Your task to perform on an android device: open app "Google Translate" Image 0: 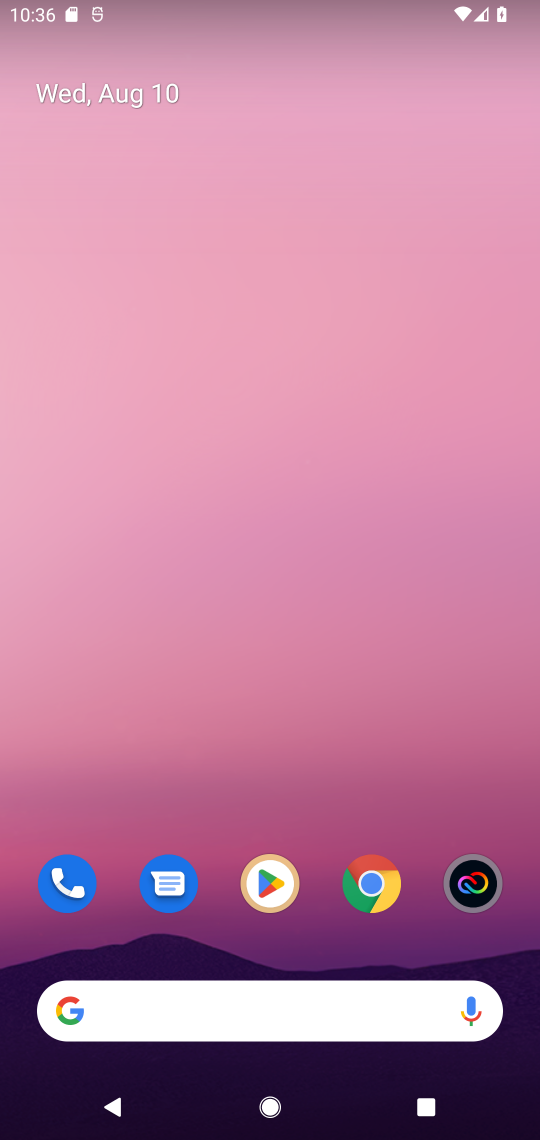
Step 0: drag from (328, 916) to (312, 215)
Your task to perform on an android device: open app "Google Translate" Image 1: 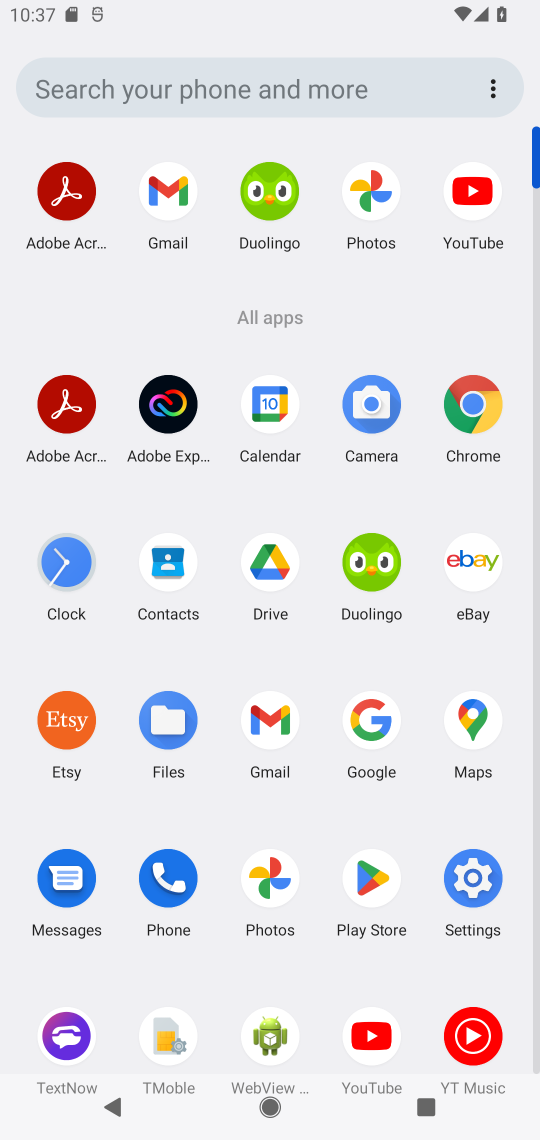
Step 1: click (368, 874)
Your task to perform on an android device: open app "Google Translate" Image 2: 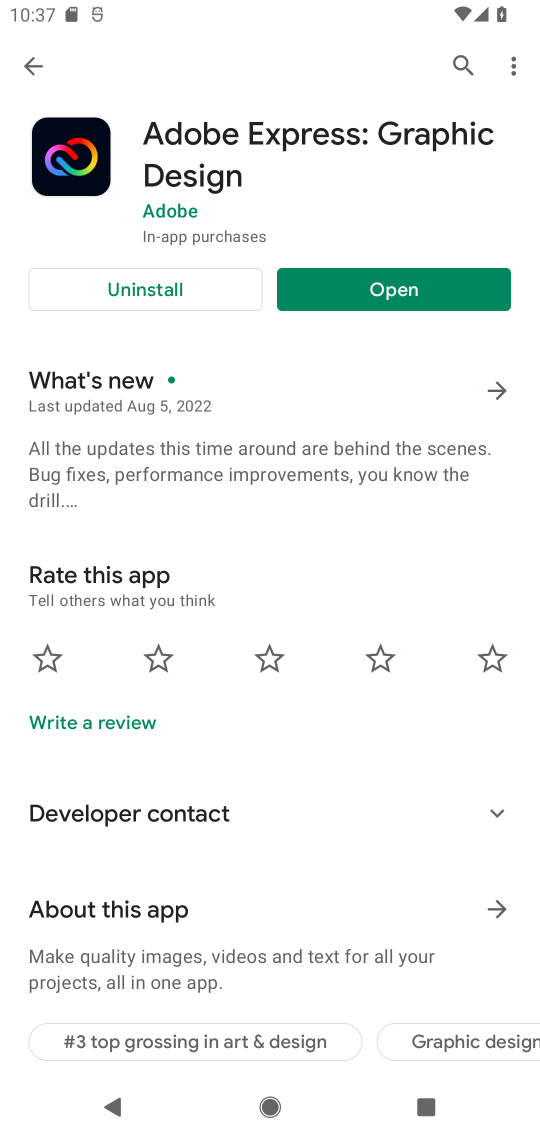
Step 2: click (460, 63)
Your task to perform on an android device: open app "Google Translate" Image 3: 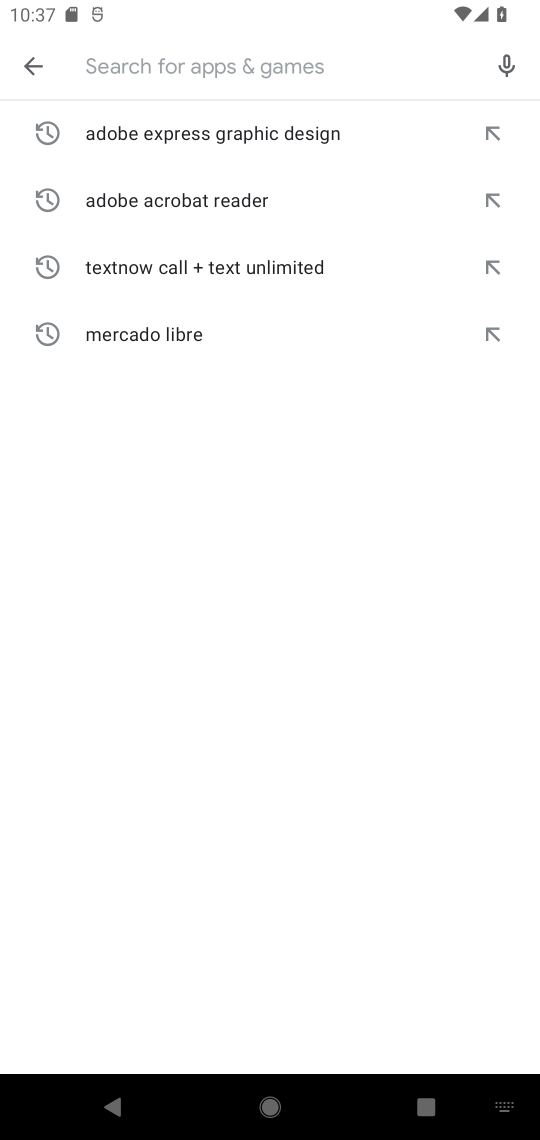
Step 3: type "Google Translate"
Your task to perform on an android device: open app "Google Translate" Image 4: 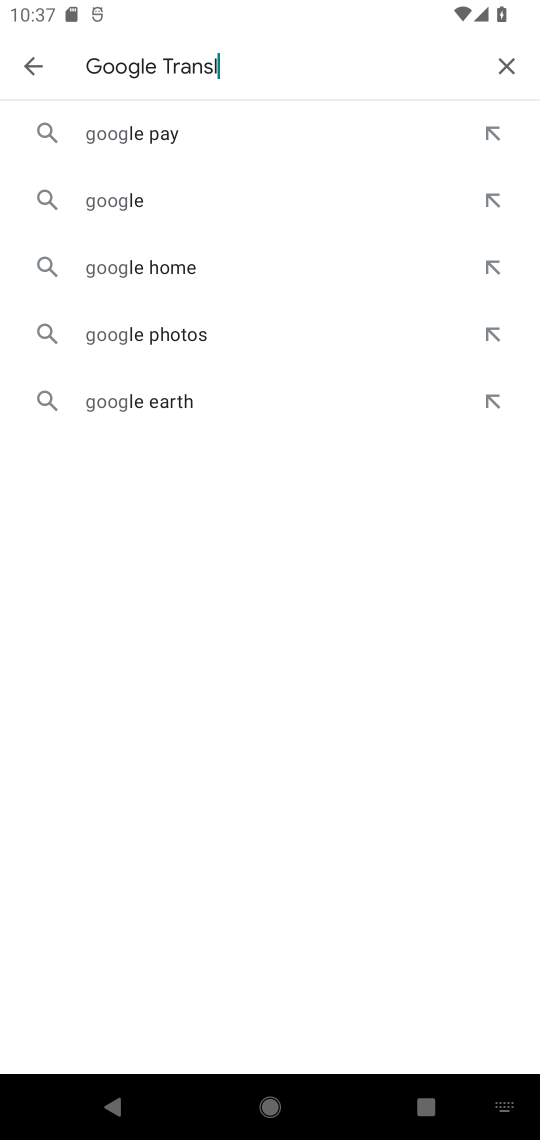
Step 4: type ""
Your task to perform on an android device: open app "Google Translate" Image 5: 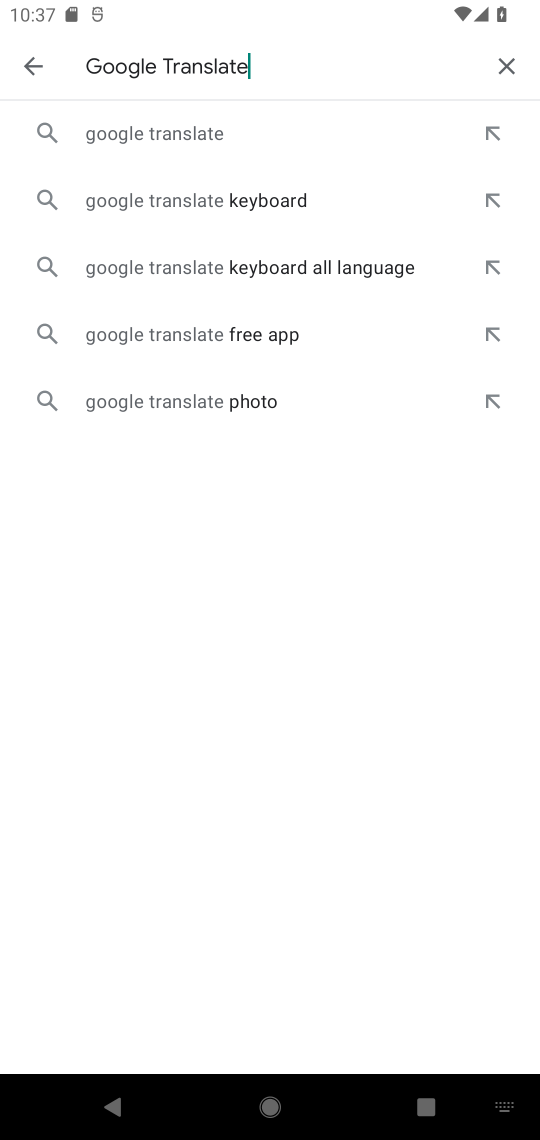
Step 5: click (165, 130)
Your task to perform on an android device: open app "Google Translate" Image 6: 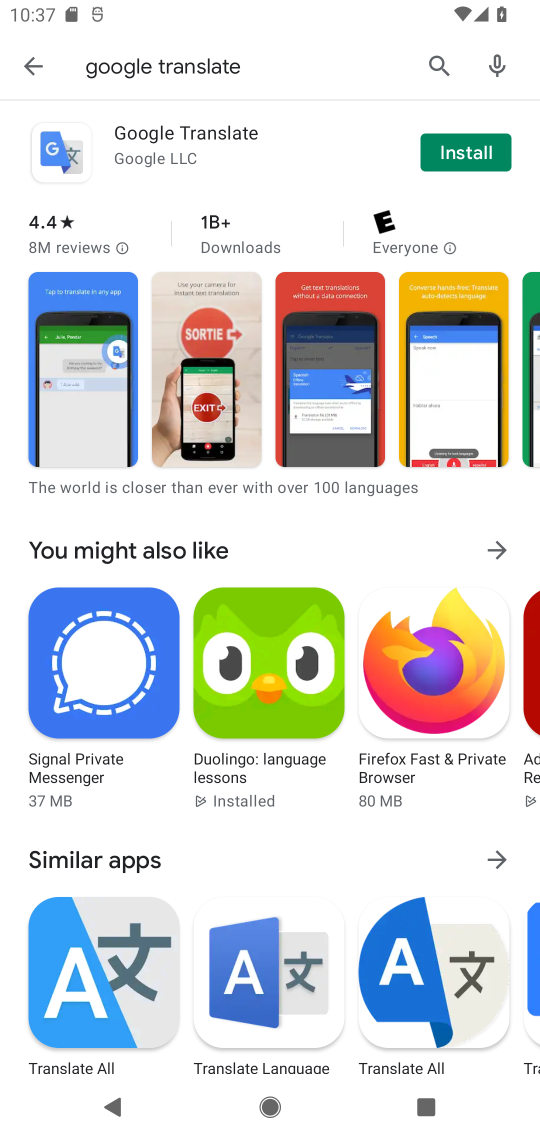
Step 6: click (474, 148)
Your task to perform on an android device: open app "Google Translate" Image 7: 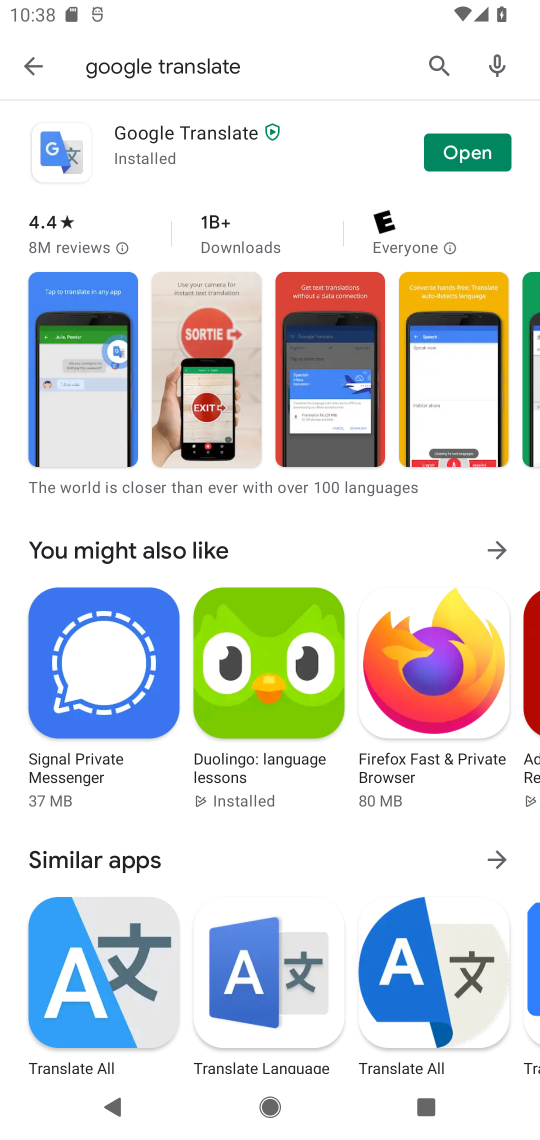
Step 7: click (472, 155)
Your task to perform on an android device: open app "Google Translate" Image 8: 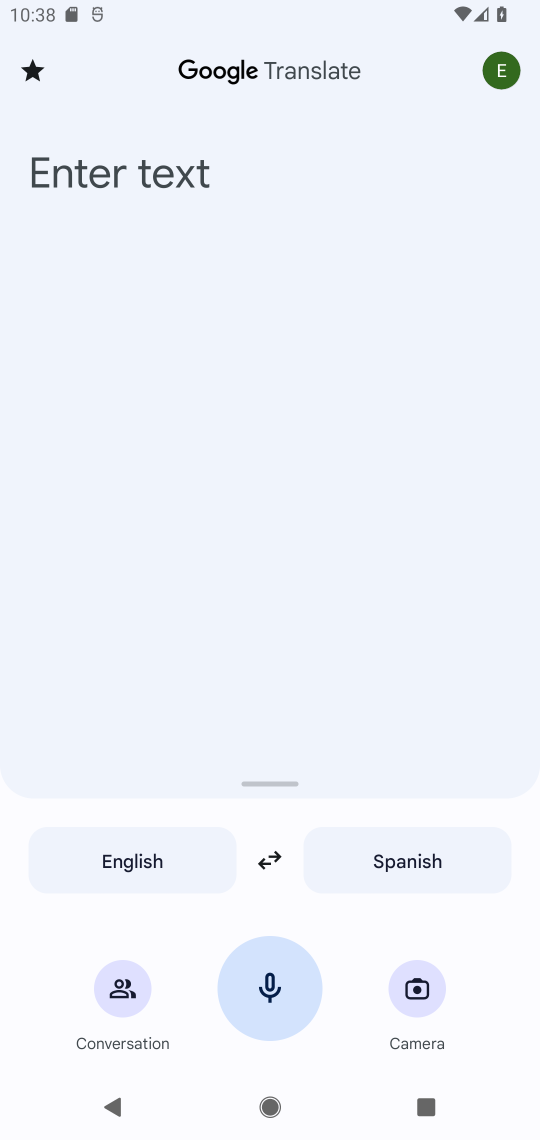
Step 8: task complete